Your task to perform on an android device: stop showing notifications on the lock screen Image 0: 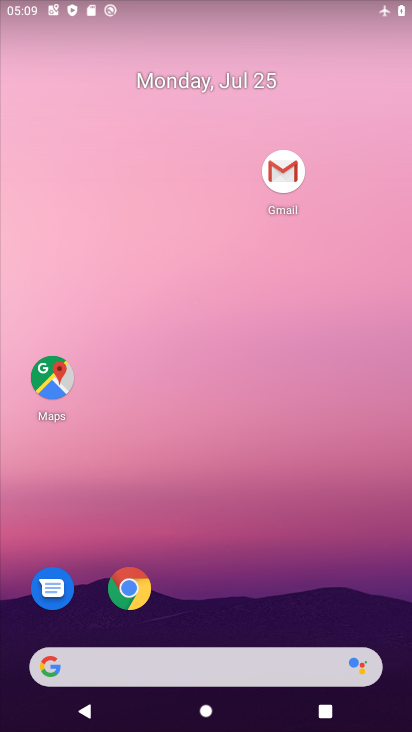
Step 0: drag from (326, 592) to (104, 75)
Your task to perform on an android device: stop showing notifications on the lock screen Image 1: 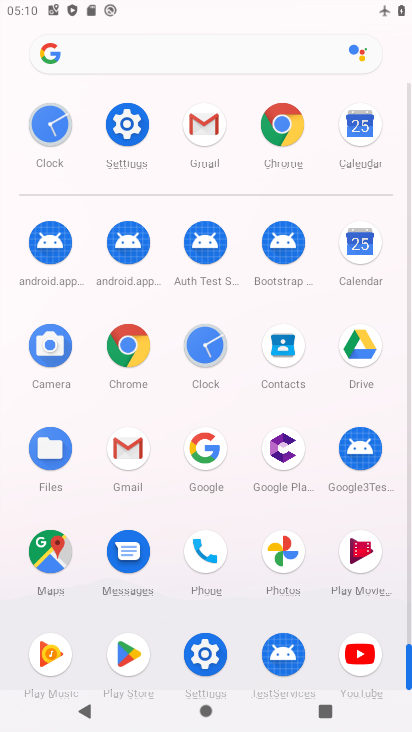
Step 1: click (123, 122)
Your task to perform on an android device: stop showing notifications on the lock screen Image 2: 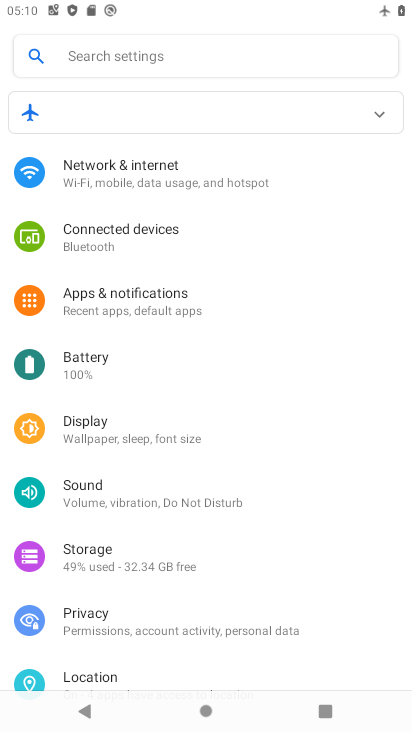
Step 2: click (155, 312)
Your task to perform on an android device: stop showing notifications on the lock screen Image 3: 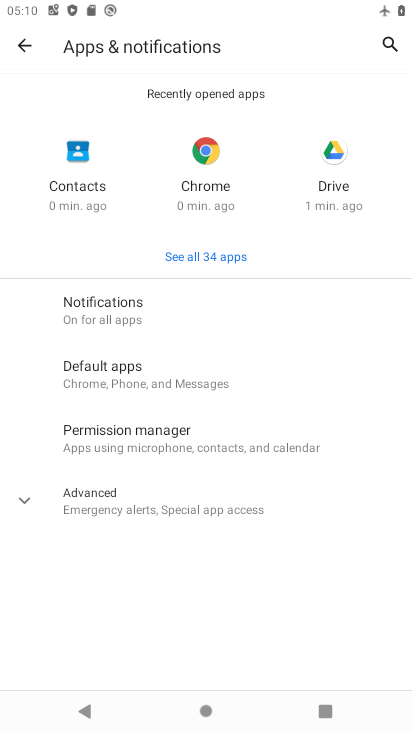
Step 3: click (120, 317)
Your task to perform on an android device: stop showing notifications on the lock screen Image 4: 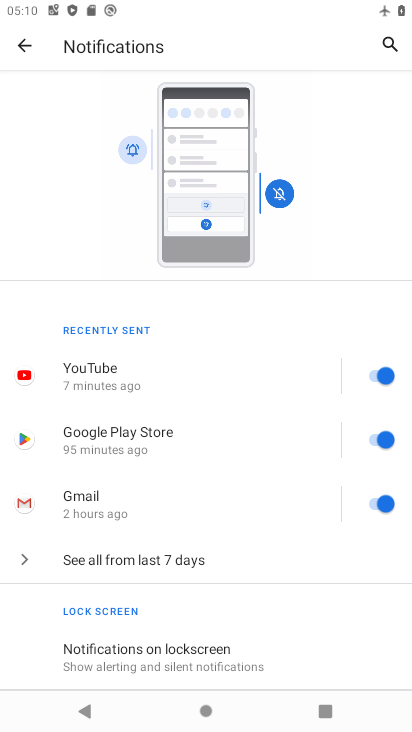
Step 4: click (198, 663)
Your task to perform on an android device: stop showing notifications on the lock screen Image 5: 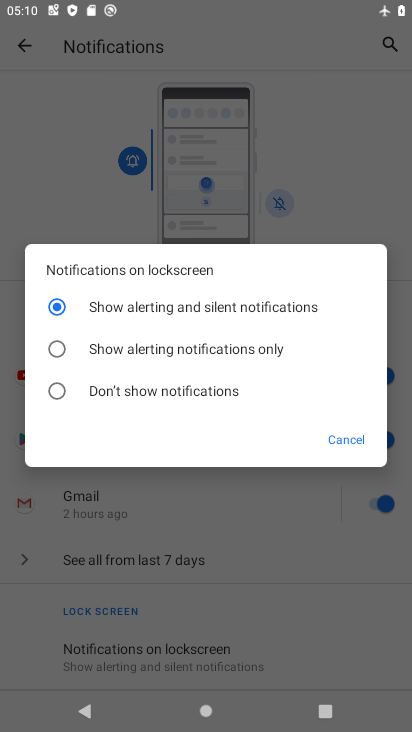
Step 5: click (141, 398)
Your task to perform on an android device: stop showing notifications on the lock screen Image 6: 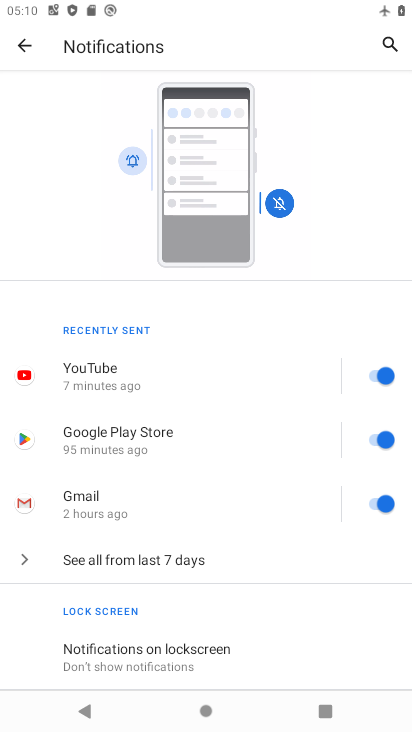
Step 6: task complete